Your task to perform on an android device: Search for seafood restaurants on Google Maps Image 0: 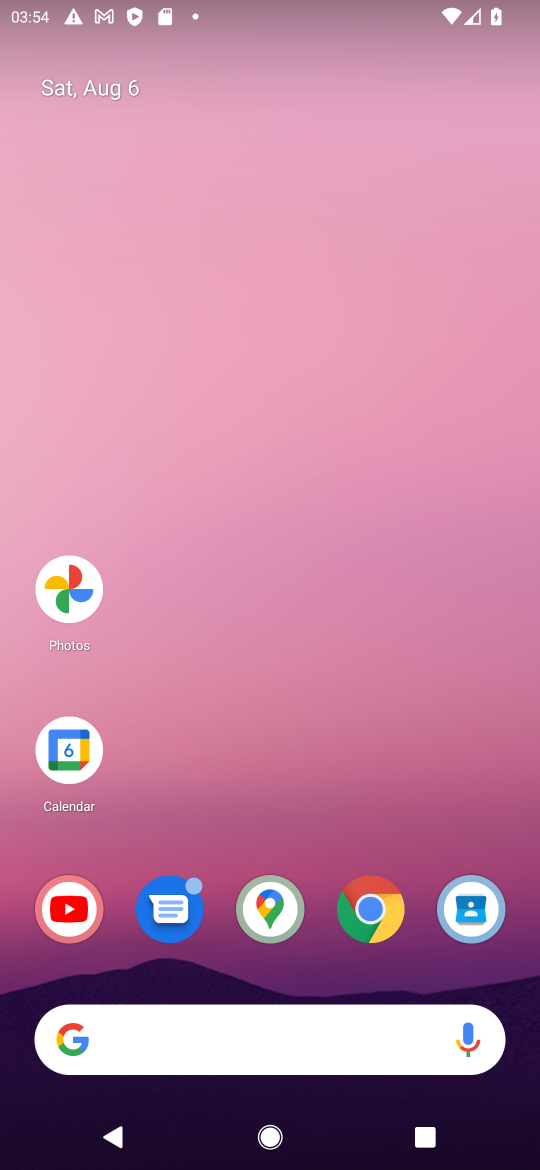
Step 0: click (269, 909)
Your task to perform on an android device: Search for seafood restaurants on Google Maps Image 1: 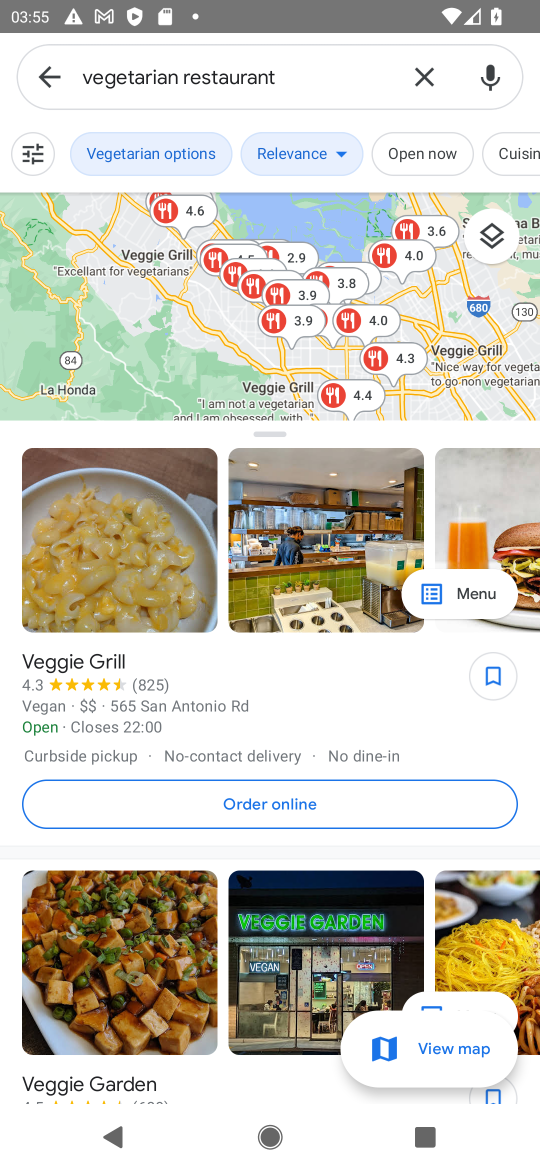
Step 1: click (424, 64)
Your task to perform on an android device: Search for seafood restaurants on Google Maps Image 2: 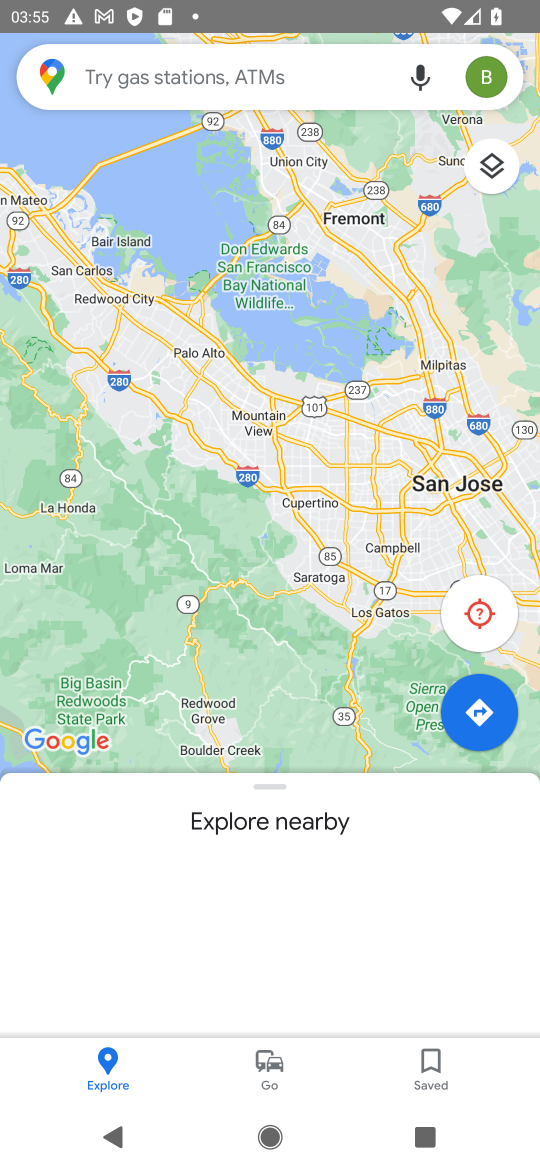
Step 2: click (280, 68)
Your task to perform on an android device: Search for seafood restaurants on Google Maps Image 3: 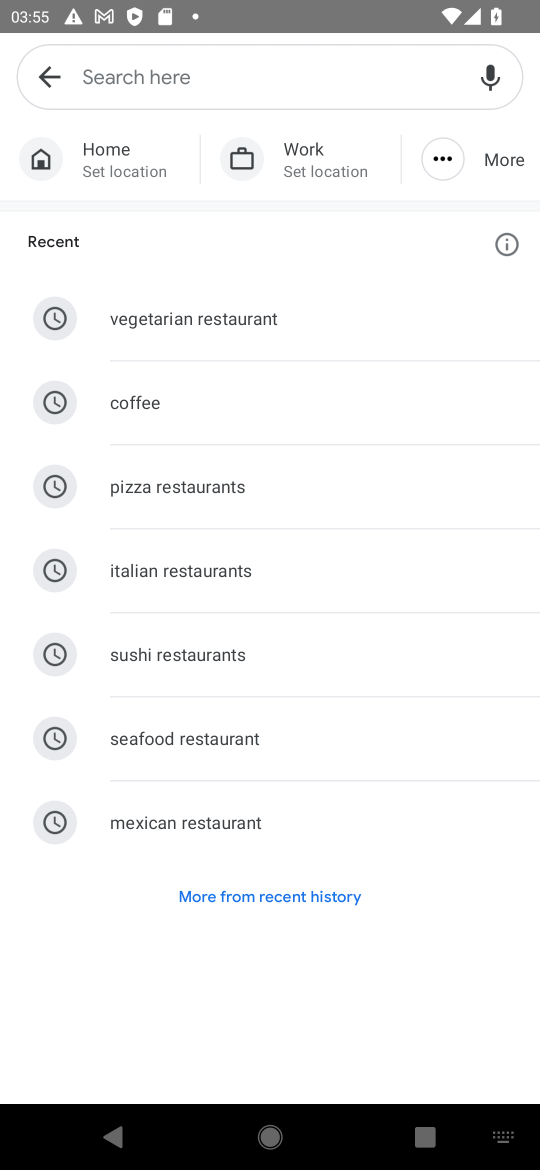
Step 3: click (202, 731)
Your task to perform on an android device: Search for seafood restaurants on Google Maps Image 4: 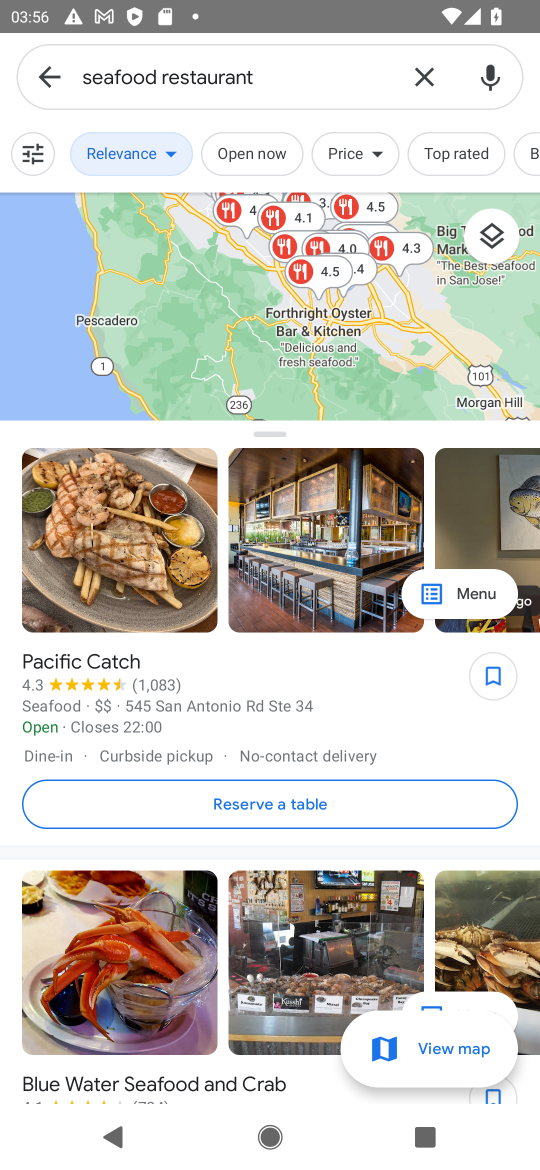
Step 4: task complete